Your task to perform on an android device: Open the stopwatch Image 0: 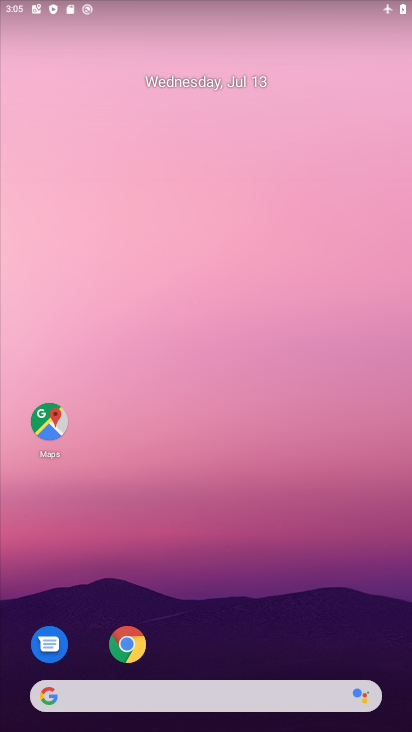
Step 0: drag from (313, 513) to (307, 122)
Your task to perform on an android device: Open the stopwatch Image 1: 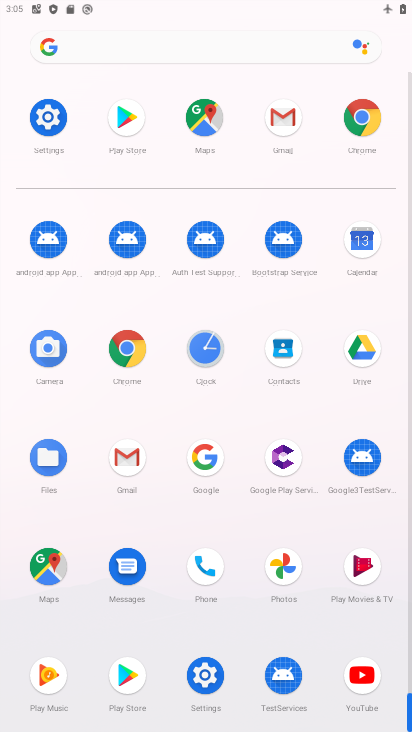
Step 1: click (207, 354)
Your task to perform on an android device: Open the stopwatch Image 2: 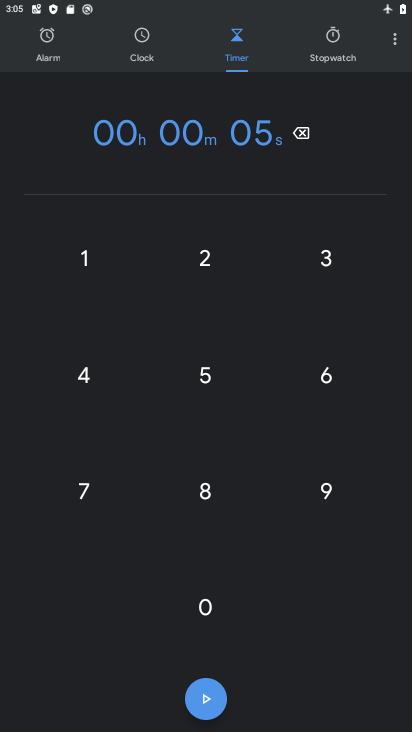
Step 2: click (349, 44)
Your task to perform on an android device: Open the stopwatch Image 3: 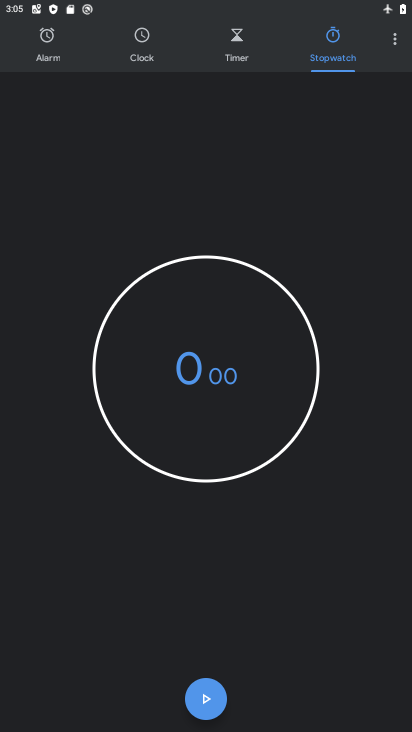
Step 3: task complete